Your task to perform on an android device: Open network settings Image 0: 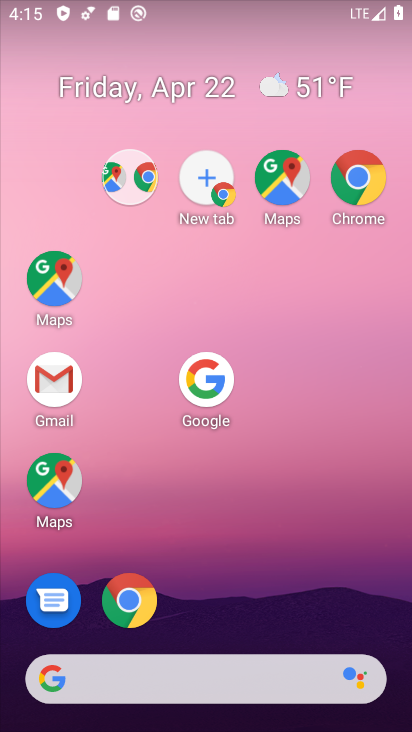
Step 0: click (70, 101)
Your task to perform on an android device: Open network settings Image 1: 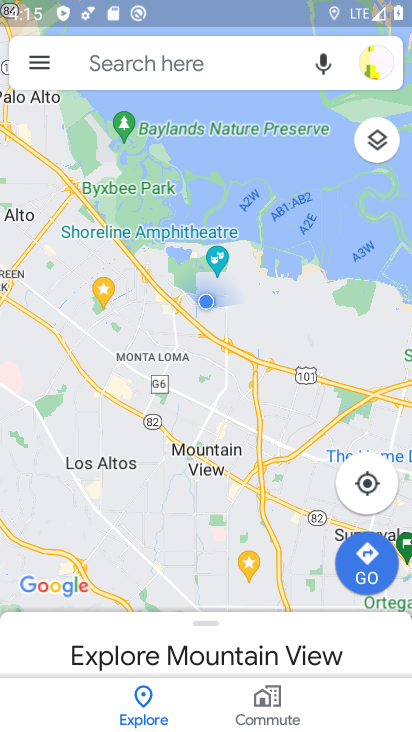
Step 1: press home button
Your task to perform on an android device: Open network settings Image 2: 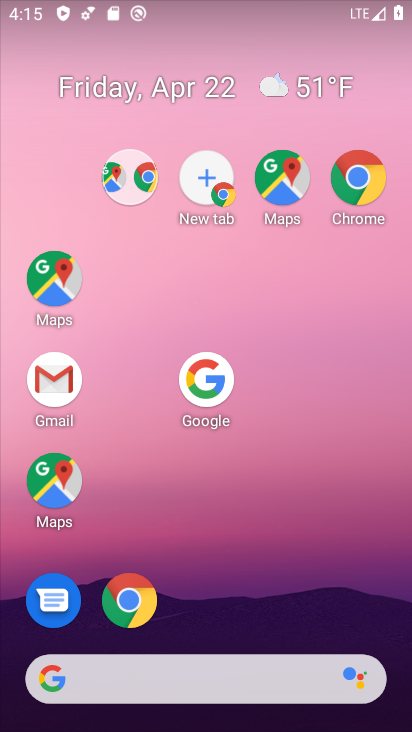
Step 2: drag from (308, 568) to (73, 90)
Your task to perform on an android device: Open network settings Image 3: 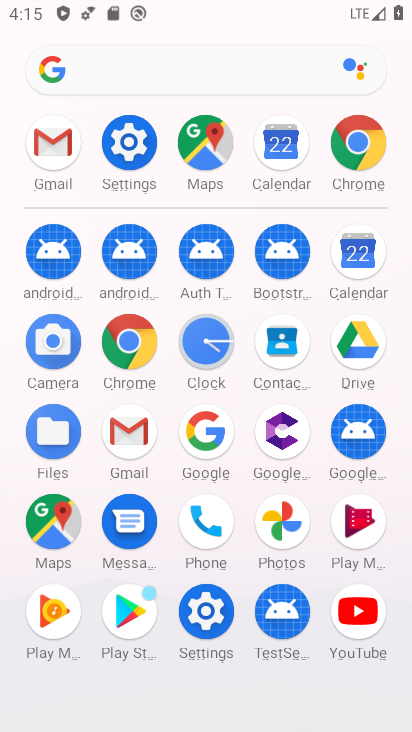
Step 3: click (135, 139)
Your task to perform on an android device: Open network settings Image 4: 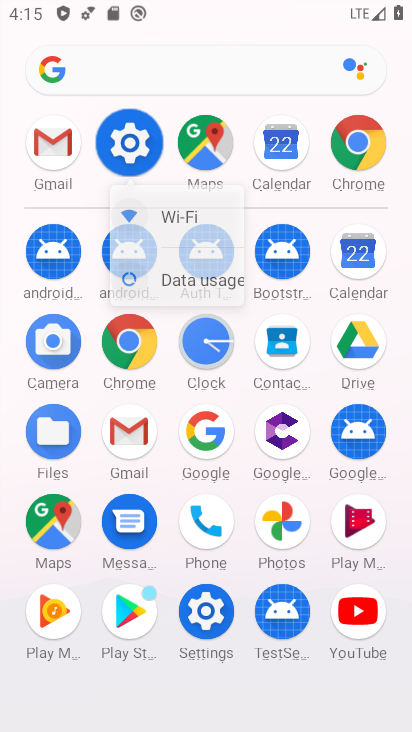
Step 4: click (134, 140)
Your task to perform on an android device: Open network settings Image 5: 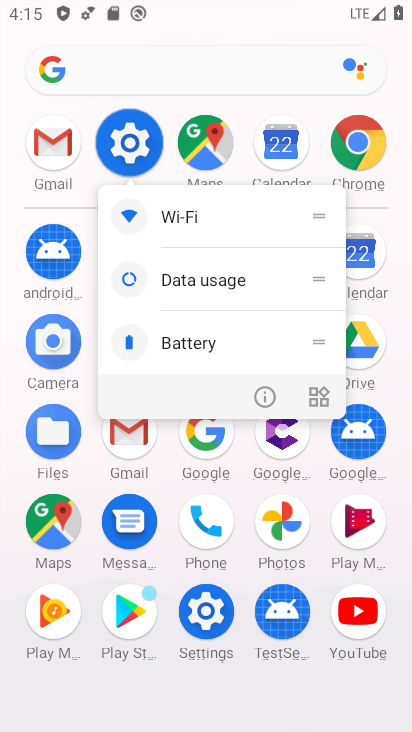
Step 5: click (134, 141)
Your task to perform on an android device: Open network settings Image 6: 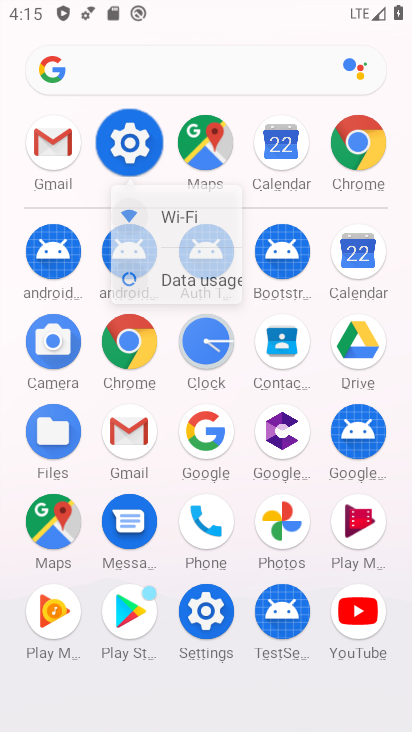
Step 6: click (134, 141)
Your task to perform on an android device: Open network settings Image 7: 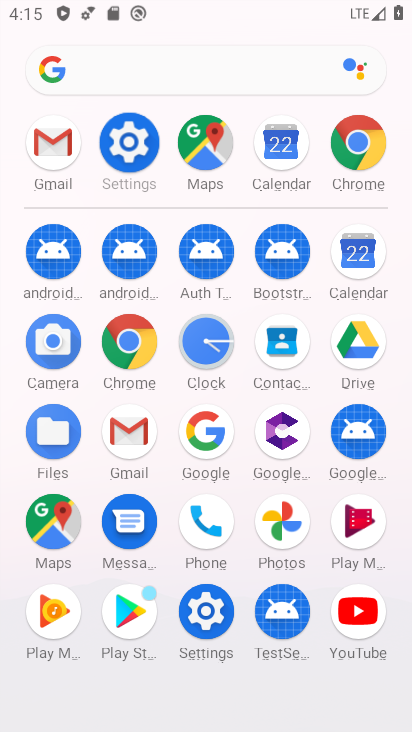
Step 7: click (134, 141)
Your task to perform on an android device: Open network settings Image 8: 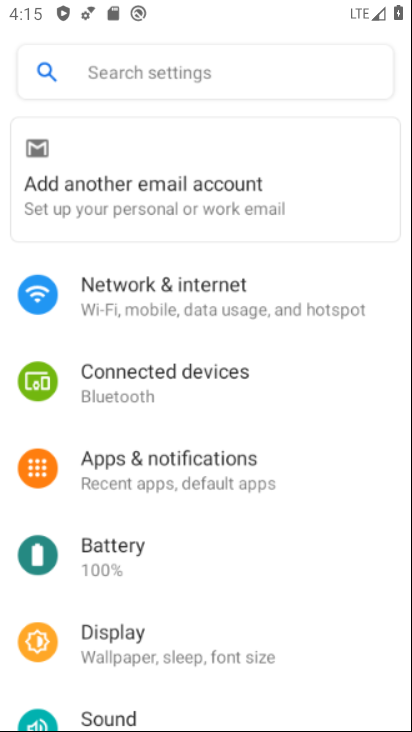
Step 8: click (134, 143)
Your task to perform on an android device: Open network settings Image 9: 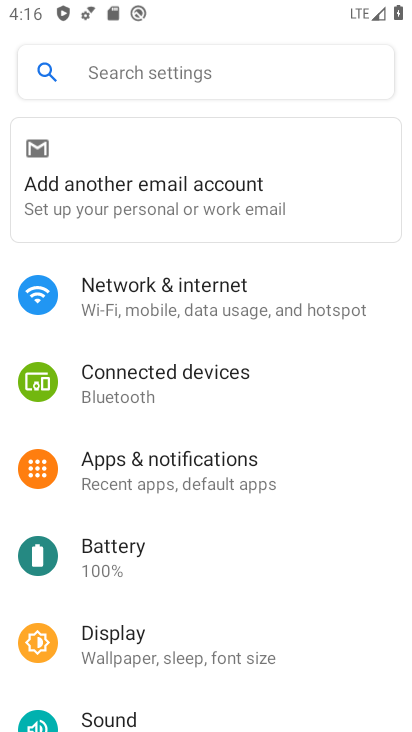
Step 9: click (198, 301)
Your task to perform on an android device: Open network settings Image 10: 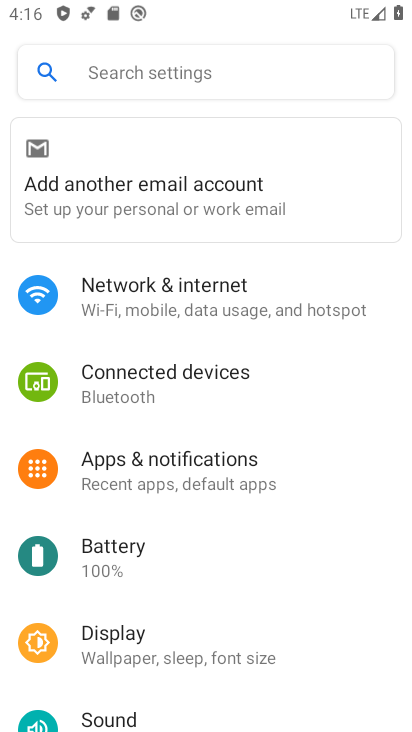
Step 10: click (198, 301)
Your task to perform on an android device: Open network settings Image 11: 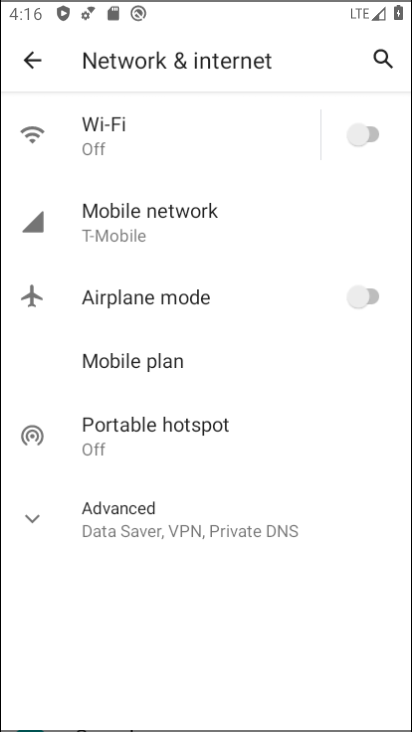
Step 11: click (198, 301)
Your task to perform on an android device: Open network settings Image 12: 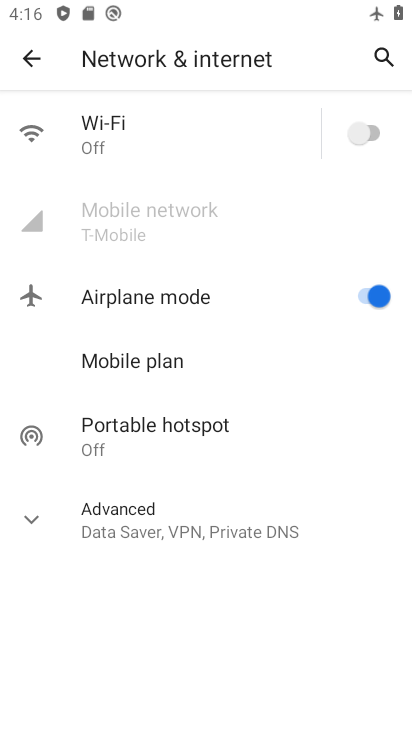
Step 12: task complete